Your task to perform on an android device: turn off location history Image 0: 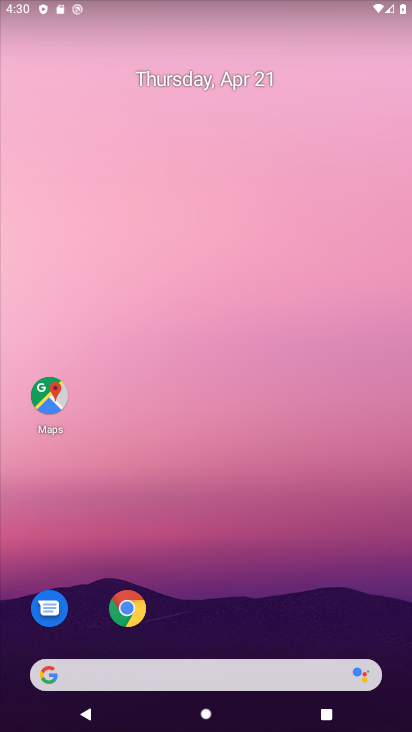
Step 0: drag from (259, 554) to (245, 201)
Your task to perform on an android device: turn off location history Image 1: 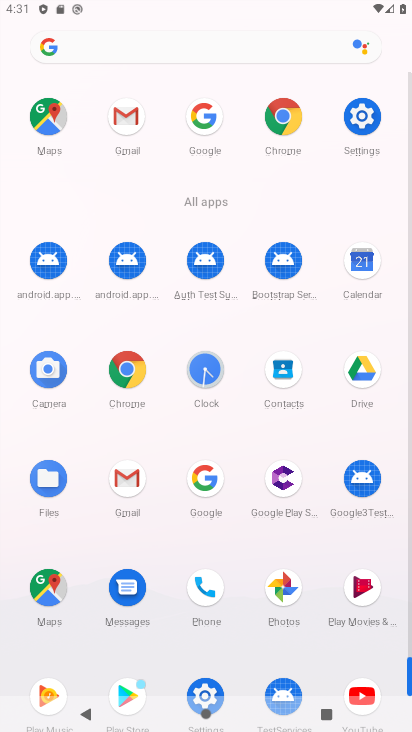
Step 1: click (362, 125)
Your task to perform on an android device: turn off location history Image 2: 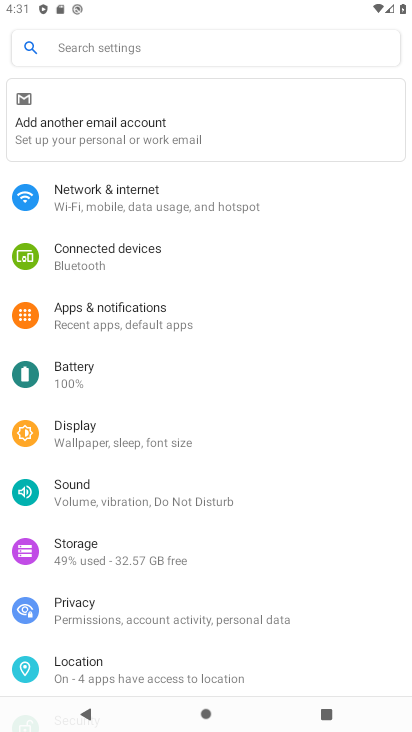
Step 2: drag from (197, 570) to (186, 290)
Your task to perform on an android device: turn off location history Image 3: 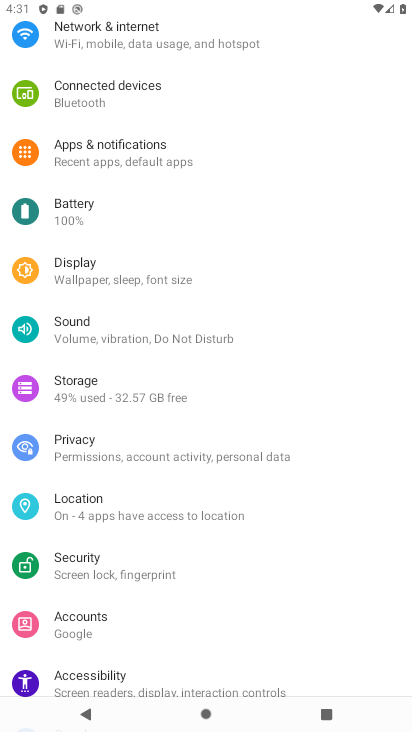
Step 3: click (103, 524)
Your task to perform on an android device: turn off location history Image 4: 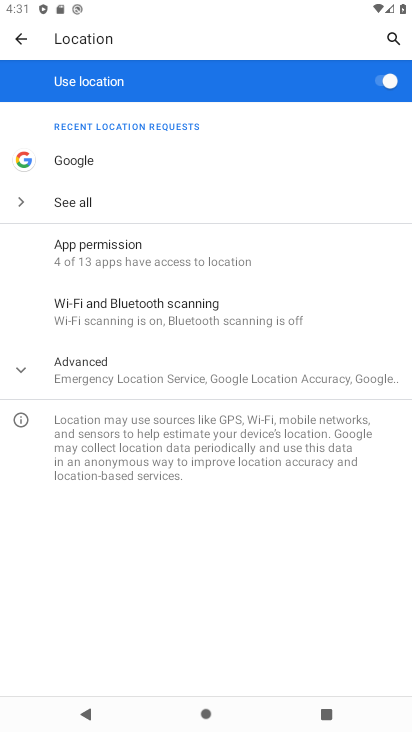
Step 4: click (84, 379)
Your task to perform on an android device: turn off location history Image 5: 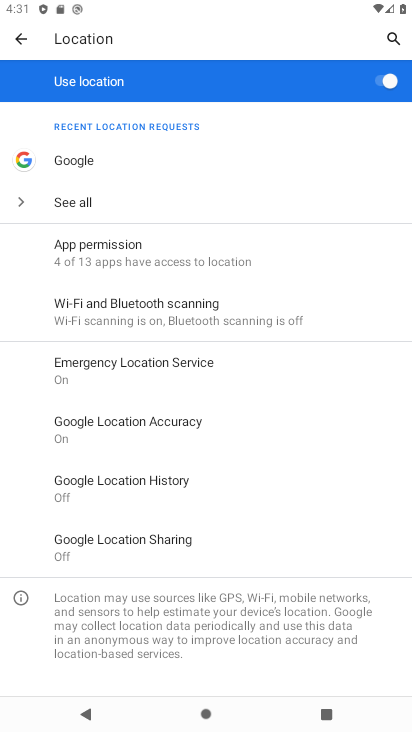
Step 5: click (92, 492)
Your task to perform on an android device: turn off location history Image 6: 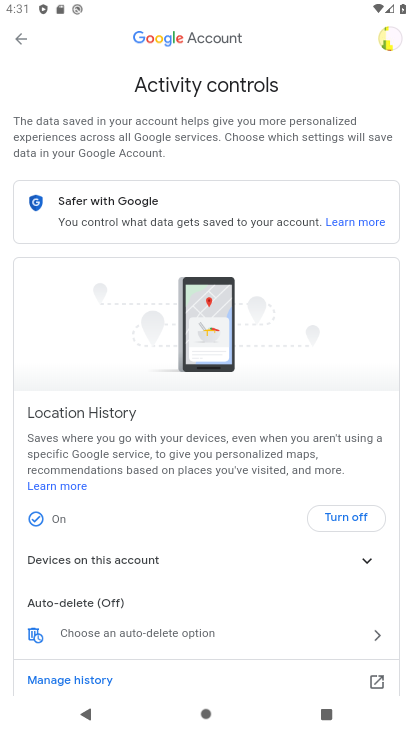
Step 6: task complete